Your task to perform on an android device: Go to Google Image 0: 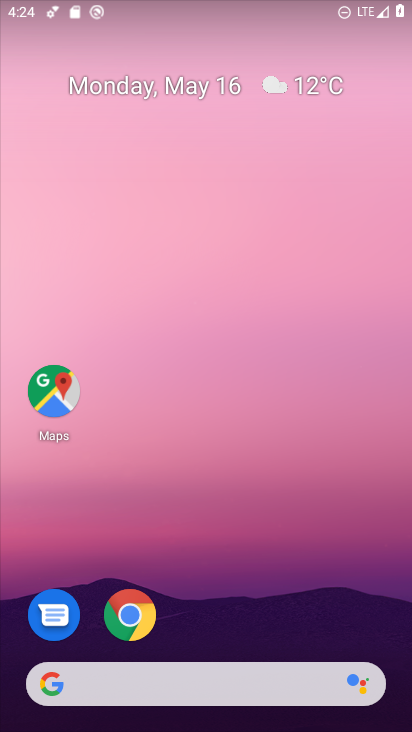
Step 0: drag from (209, 723) to (216, 329)
Your task to perform on an android device: Go to Google Image 1: 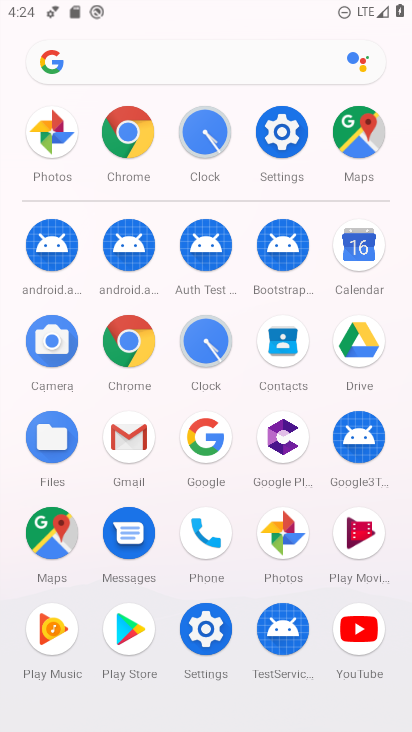
Step 1: click (213, 430)
Your task to perform on an android device: Go to Google Image 2: 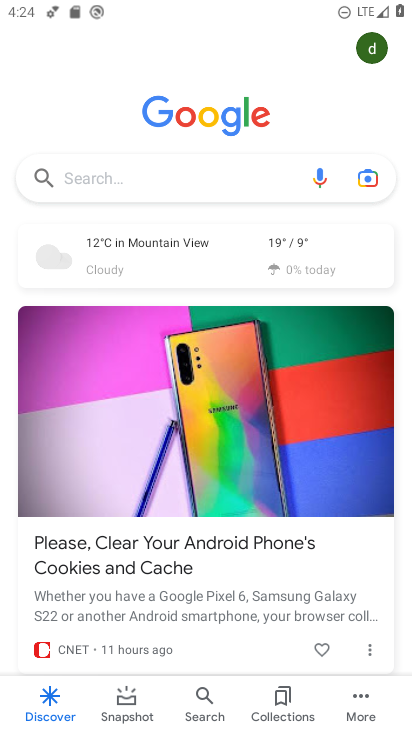
Step 2: task complete